Your task to perform on an android device: When is my next appointment? Image 0: 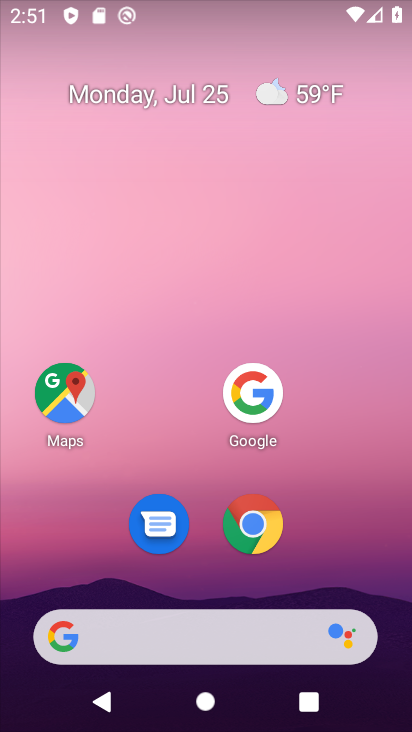
Step 0: press home button
Your task to perform on an android device: When is my next appointment? Image 1: 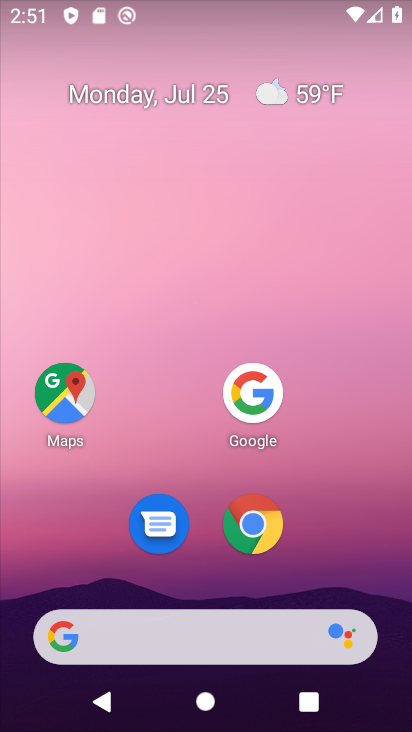
Step 1: drag from (174, 633) to (276, 113)
Your task to perform on an android device: When is my next appointment? Image 2: 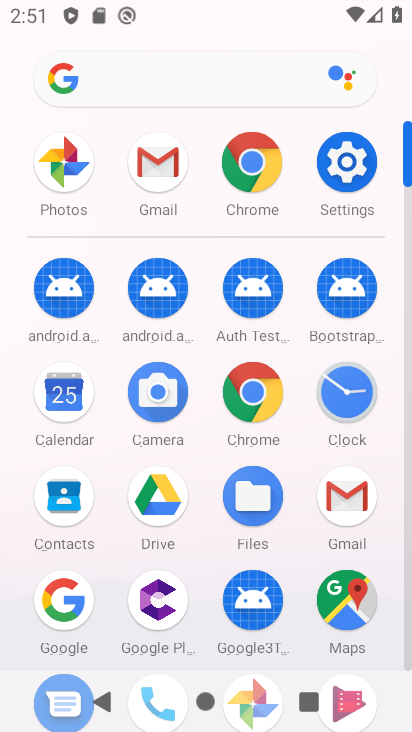
Step 2: click (70, 394)
Your task to perform on an android device: When is my next appointment? Image 3: 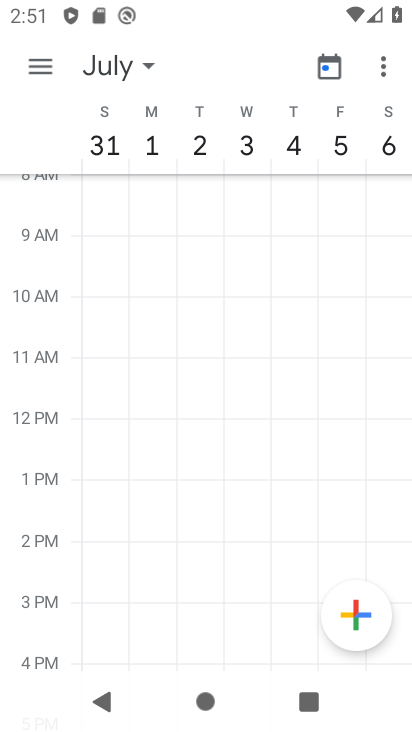
Step 3: click (117, 60)
Your task to perform on an android device: When is my next appointment? Image 4: 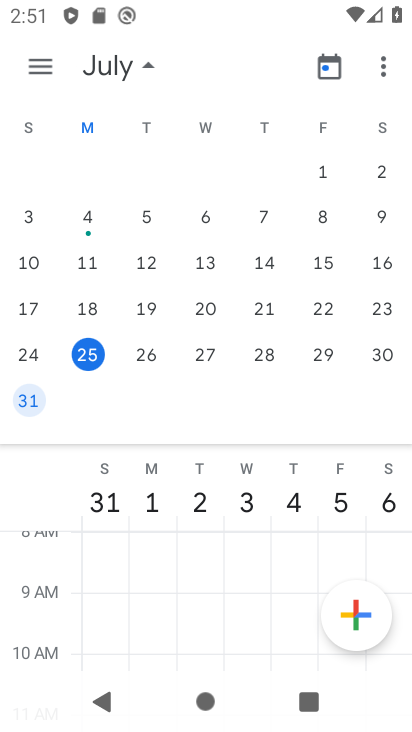
Step 4: click (97, 352)
Your task to perform on an android device: When is my next appointment? Image 5: 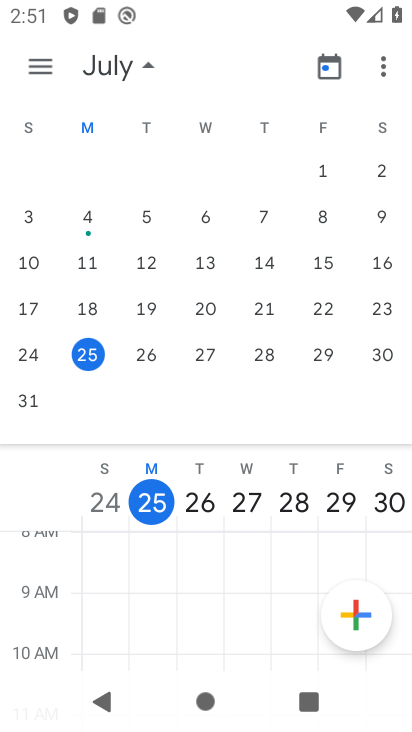
Step 5: click (44, 63)
Your task to perform on an android device: When is my next appointment? Image 6: 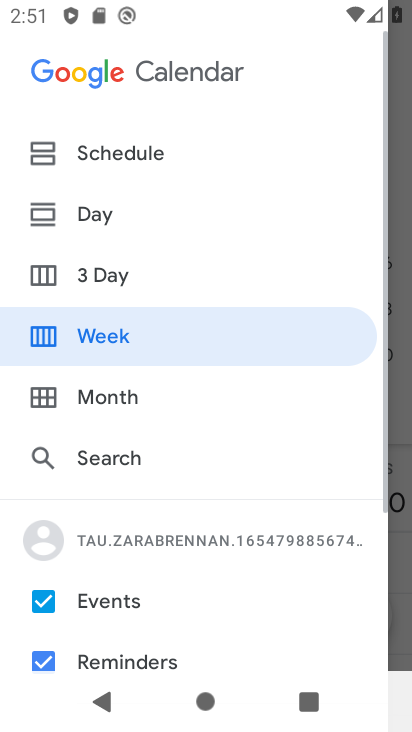
Step 6: click (129, 157)
Your task to perform on an android device: When is my next appointment? Image 7: 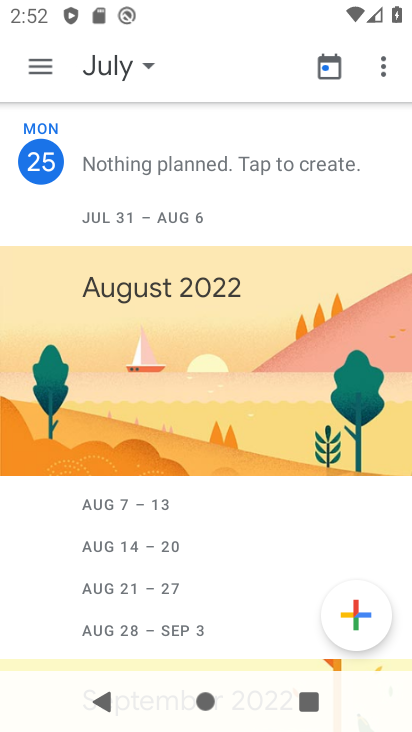
Step 7: task complete